Your task to perform on an android device: Go to internet settings Image 0: 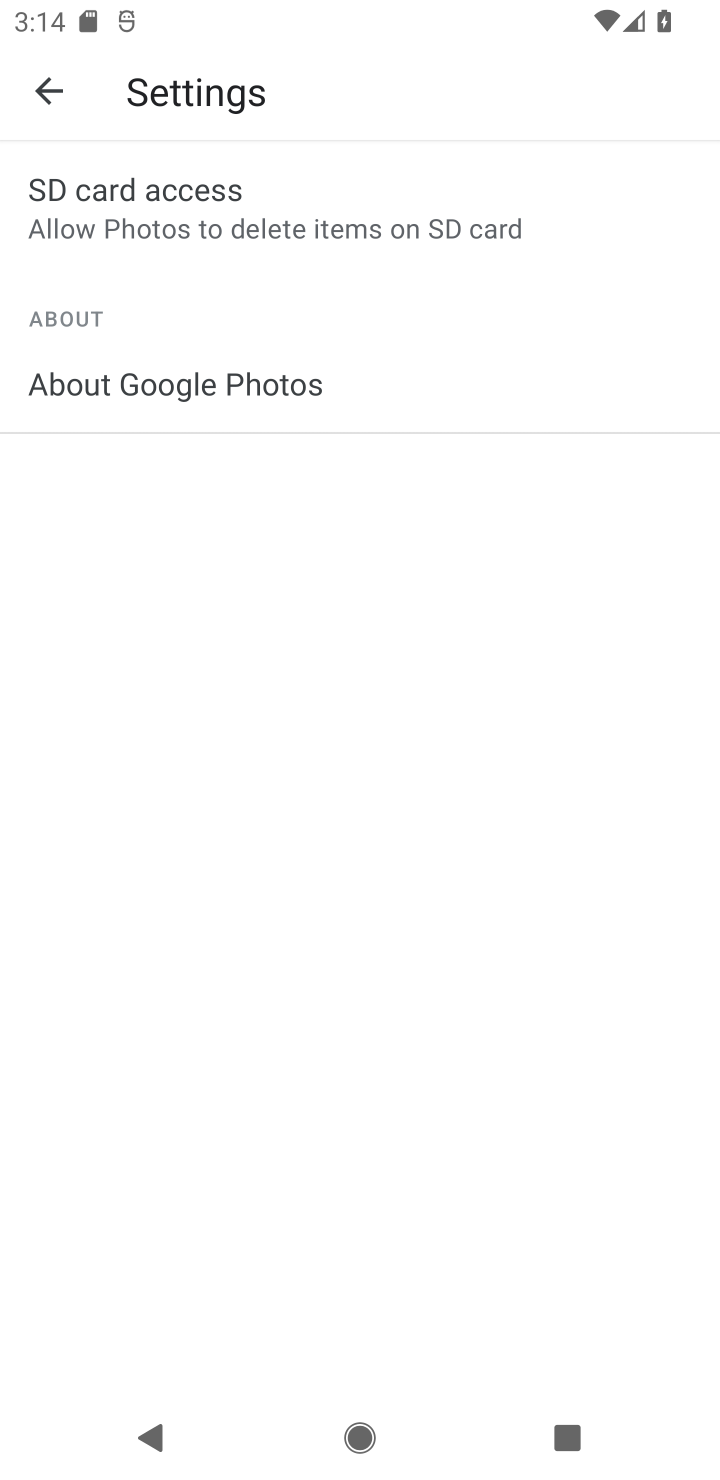
Step 0: press home button
Your task to perform on an android device: Go to internet settings Image 1: 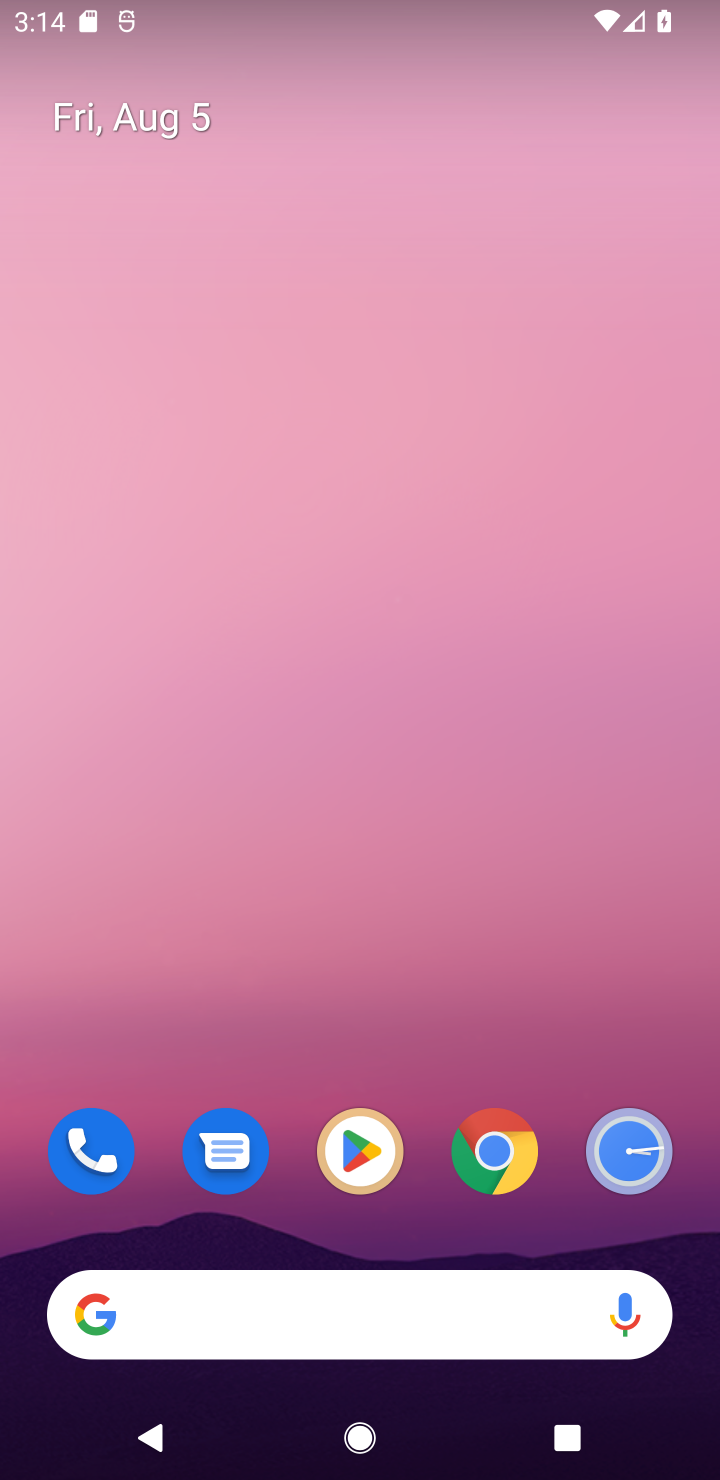
Step 1: drag from (632, 1016) to (573, 329)
Your task to perform on an android device: Go to internet settings Image 2: 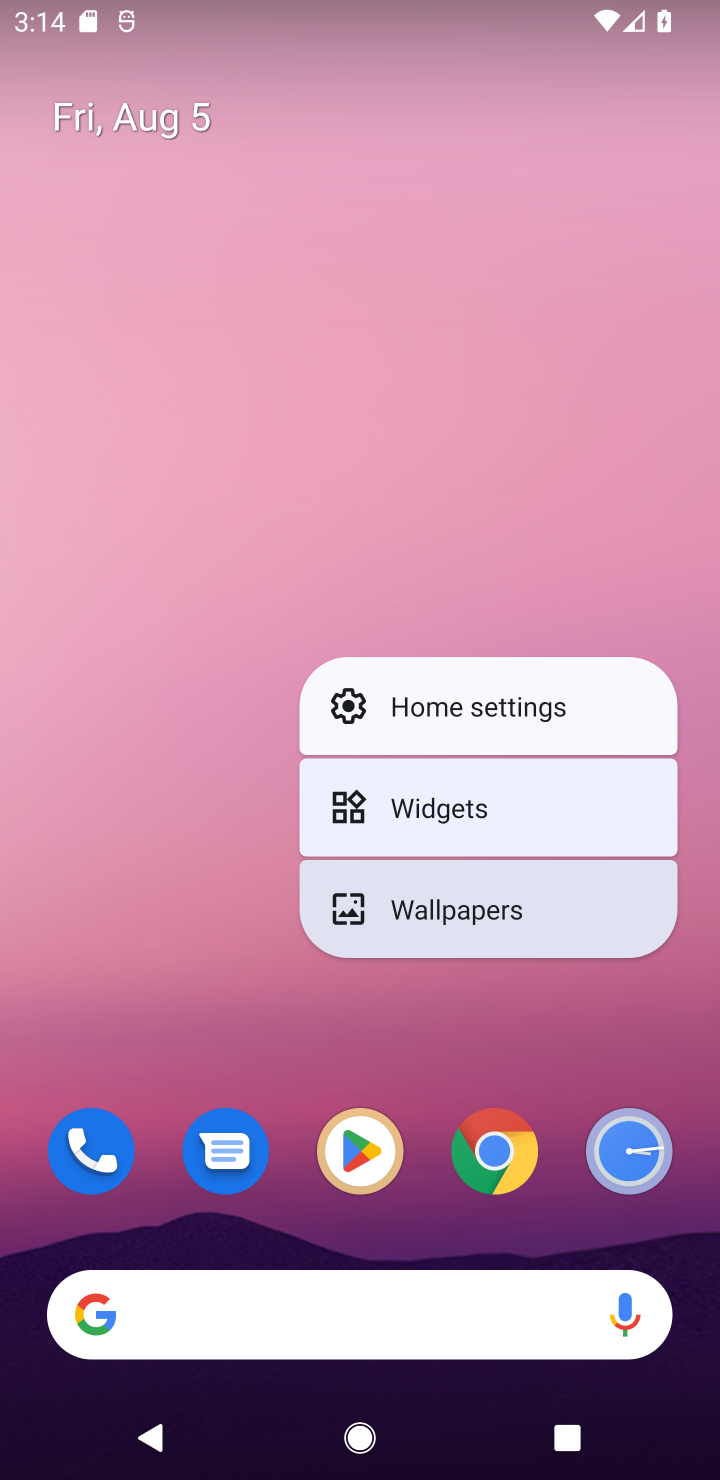
Step 2: click (171, 1096)
Your task to perform on an android device: Go to internet settings Image 3: 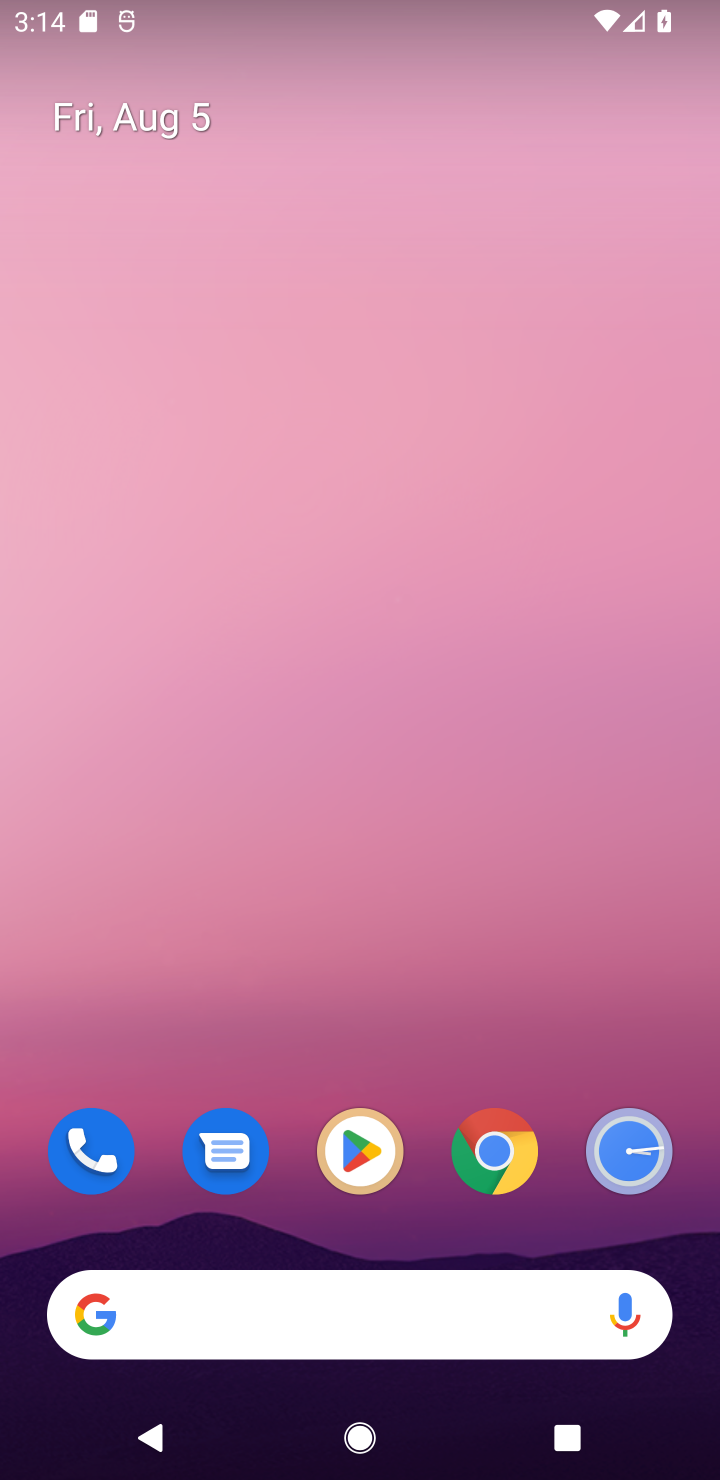
Step 3: drag from (155, 1099) to (422, 70)
Your task to perform on an android device: Go to internet settings Image 4: 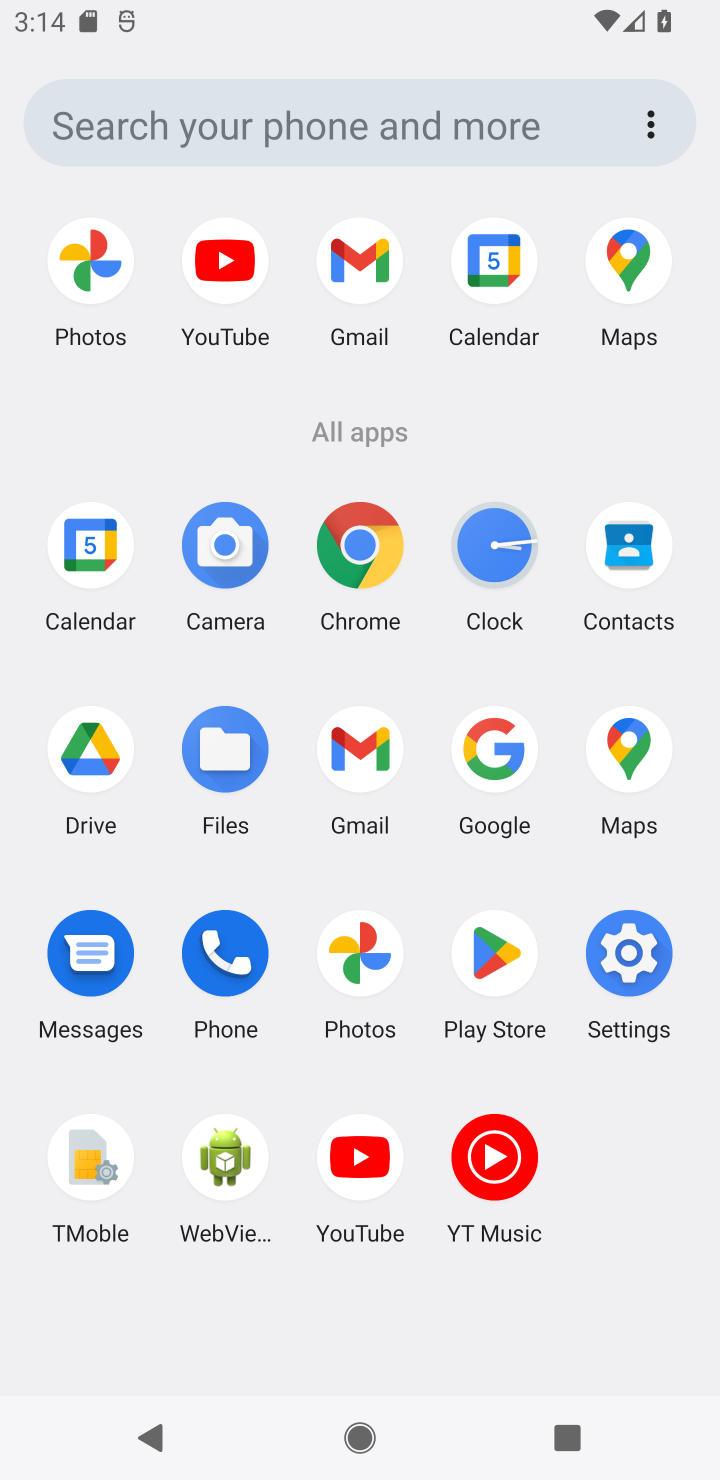
Step 4: click (628, 975)
Your task to perform on an android device: Go to internet settings Image 5: 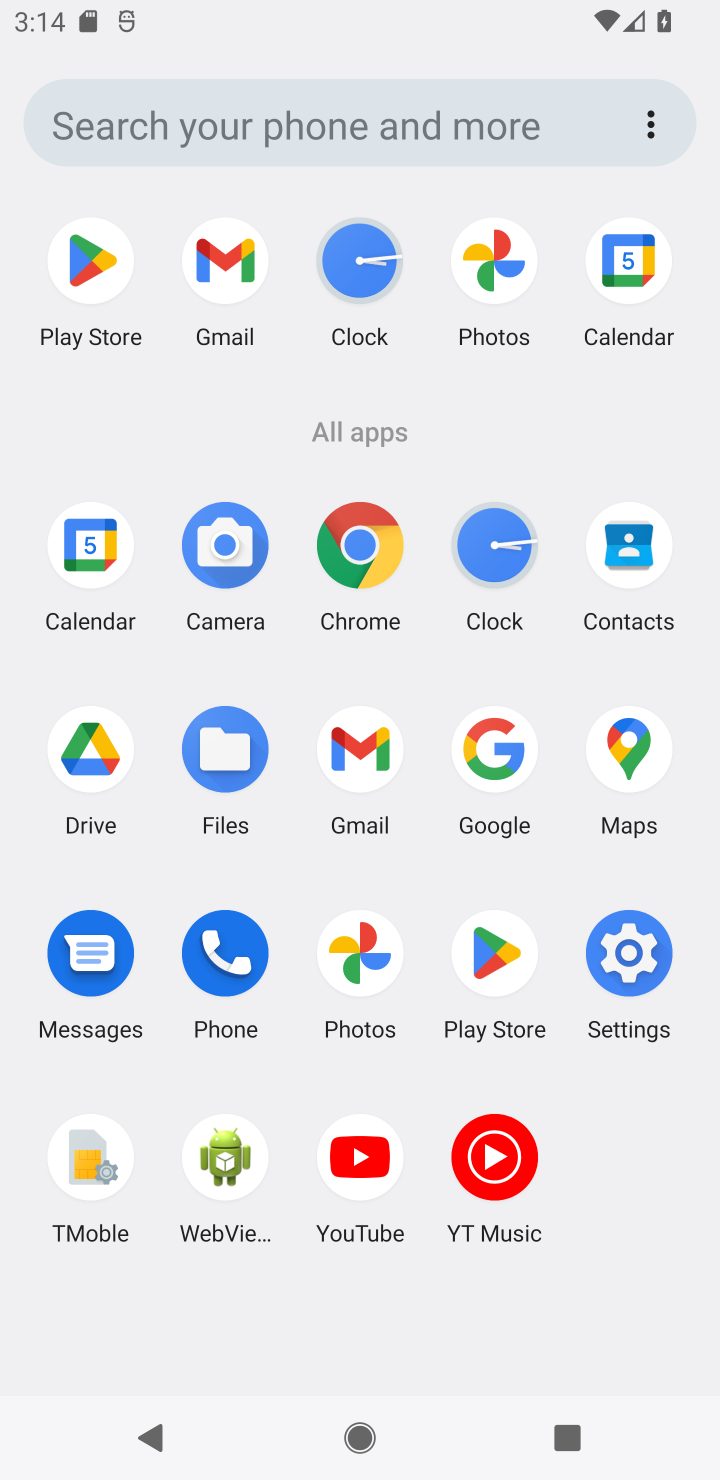
Step 5: click (626, 965)
Your task to perform on an android device: Go to internet settings Image 6: 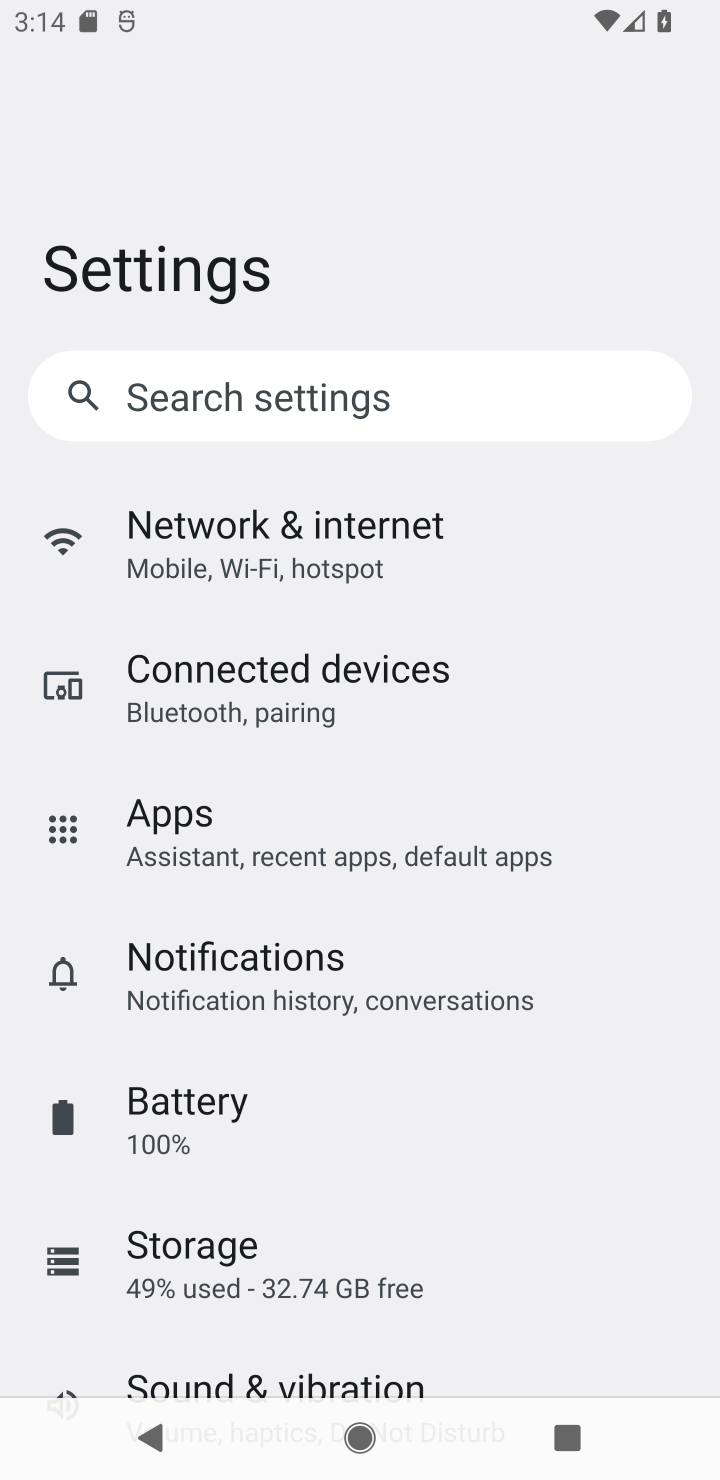
Step 6: click (335, 538)
Your task to perform on an android device: Go to internet settings Image 7: 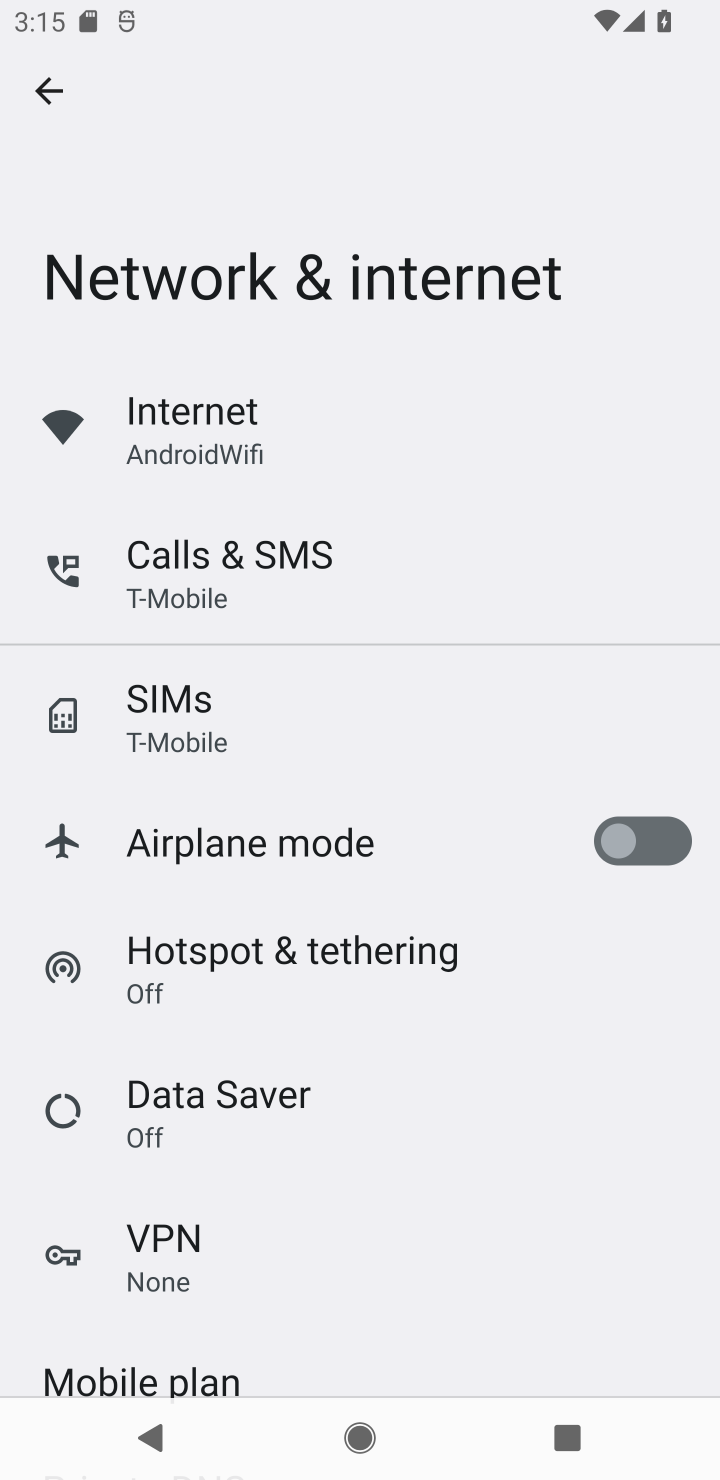
Step 7: task complete